Your task to perform on an android device: See recent photos Image 0: 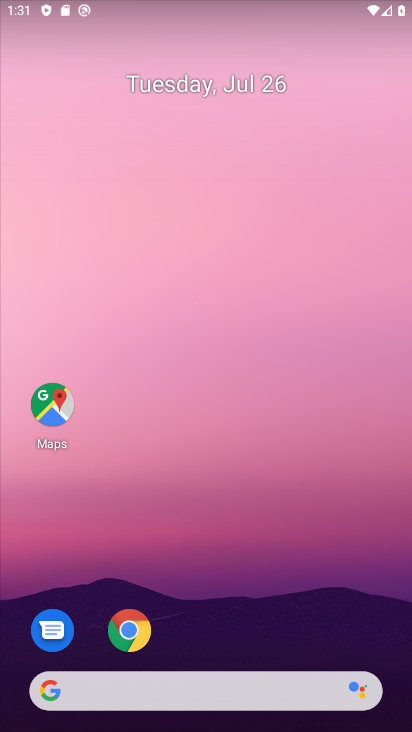
Step 0: drag from (206, 672) to (198, 249)
Your task to perform on an android device: See recent photos Image 1: 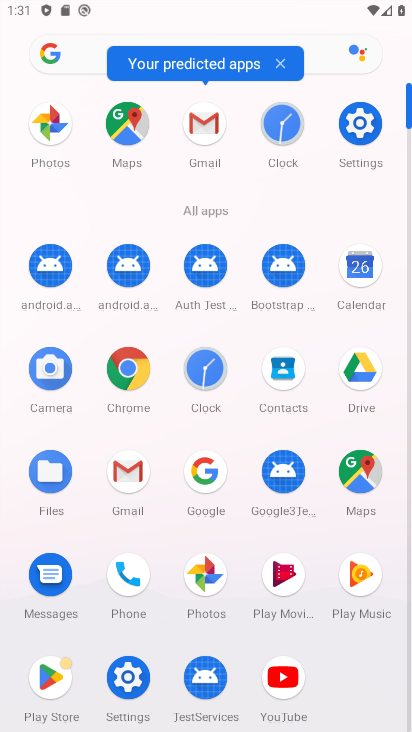
Step 1: click (208, 571)
Your task to perform on an android device: See recent photos Image 2: 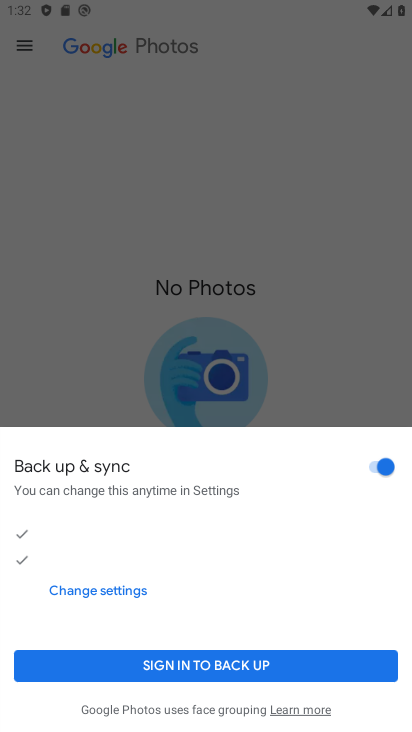
Step 2: task complete